Your task to perform on an android device: Do I have any events this weekend? Image 0: 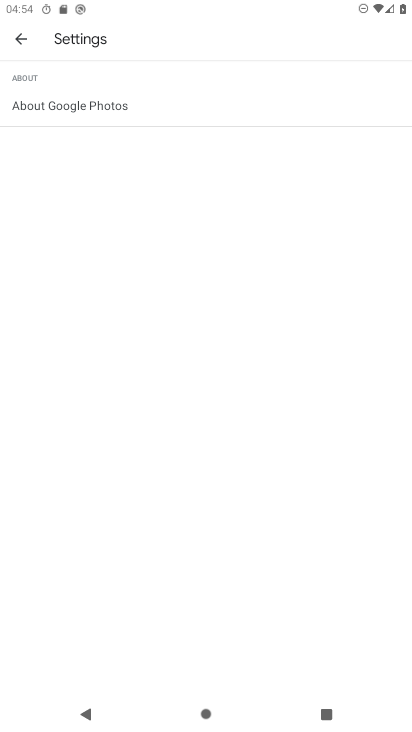
Step 0: press home button
Your task to perform on an android device: Do I have any events this weekend? Image 1: 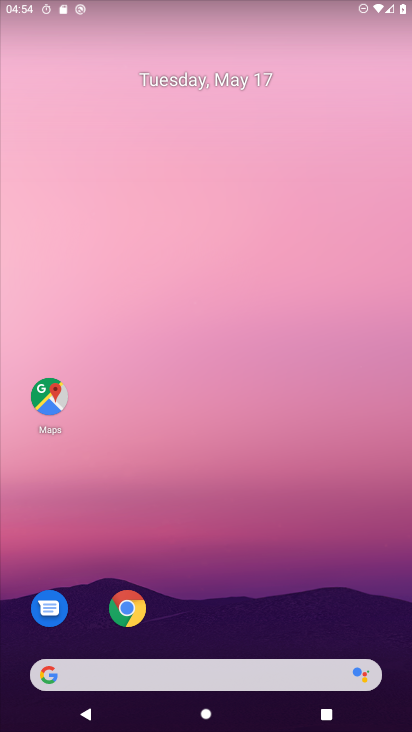
Step 1: drag from (177, 661) to (194, 331)
Your task to perform on an android device: Do I have any events this weekend? Image 2: 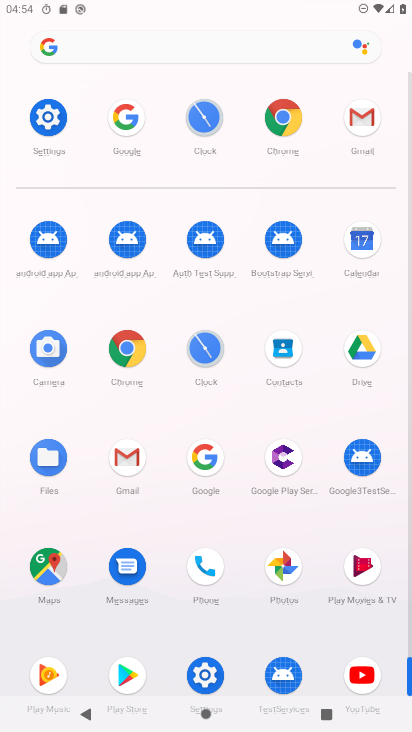
Step 2: click (344, 242)
Your task to perform on an android device: Do I have any events this weekend? Image 3: 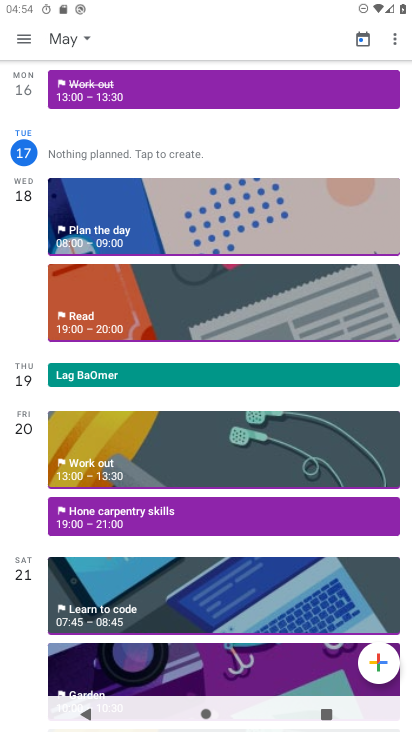
Step 3: click (65, 34)
Your task to perform on an android device: Do I have any events this weekend? Image 4: 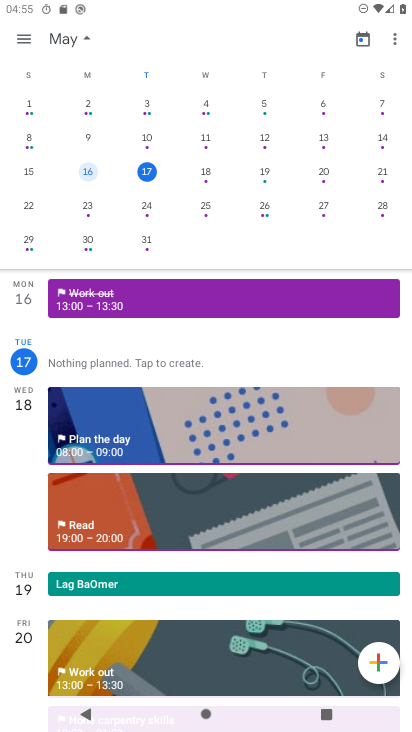
Step 4: click (381, 178)
Your task to perform on an android device: Do I have any events this weekend? Image 5: 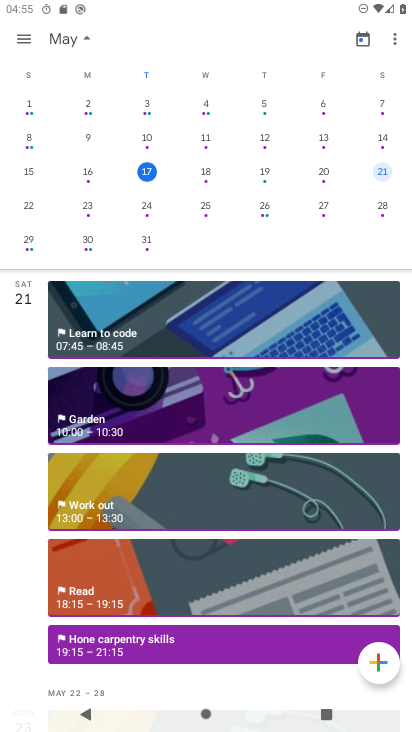
Step 5: click (153, 337)
Your task to perform on an android device: Do I have any events this weekend? Image 6: 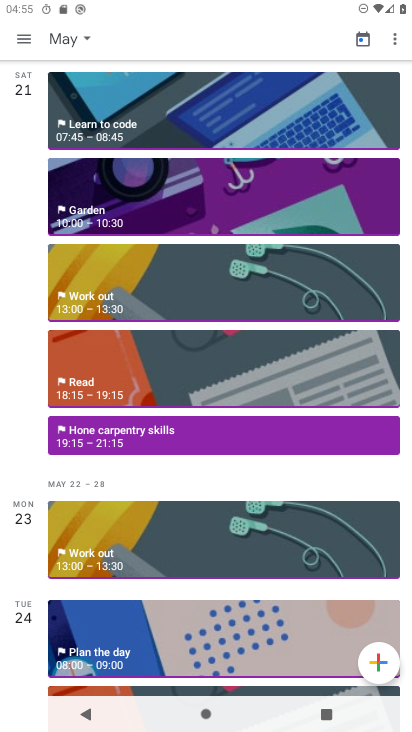
Step 6: task complete